Your task to perform on an android device: delete the emails in spam in the gmail app Image 0: 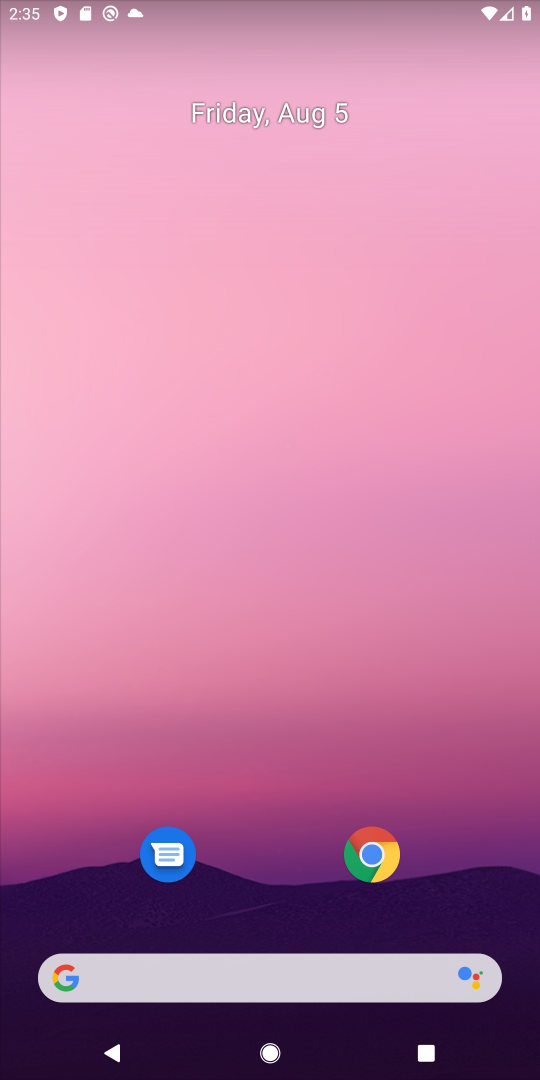
Step 0: drag from (32, 1029) to (508, 273)
Your task to perform on an android device: delete the emails in spam in the gmail app Image 1: 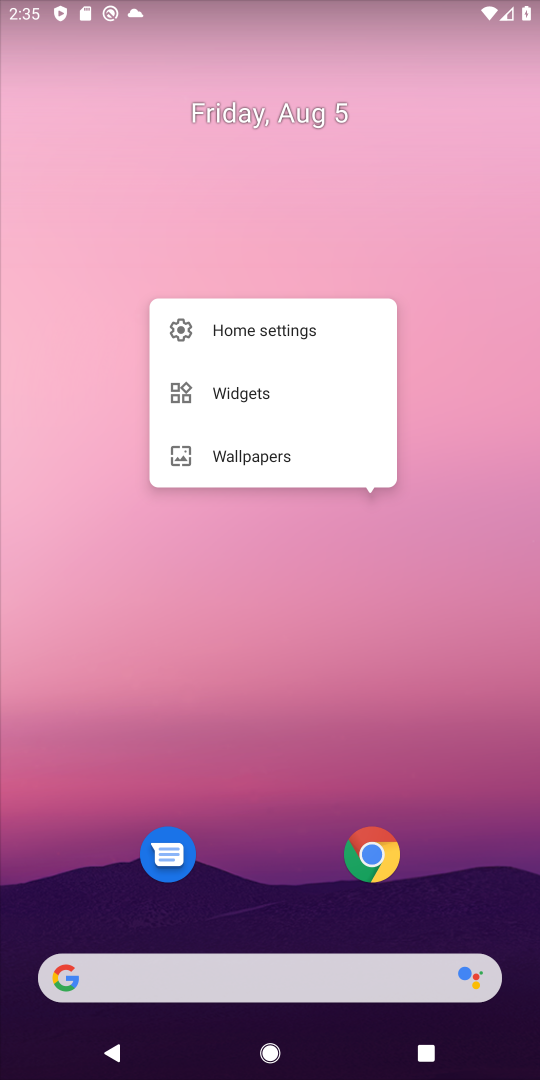
Step 1: click (58, 1045)
Your task to perform on an android device: delete the emails in spam in the gmail app Image 2: 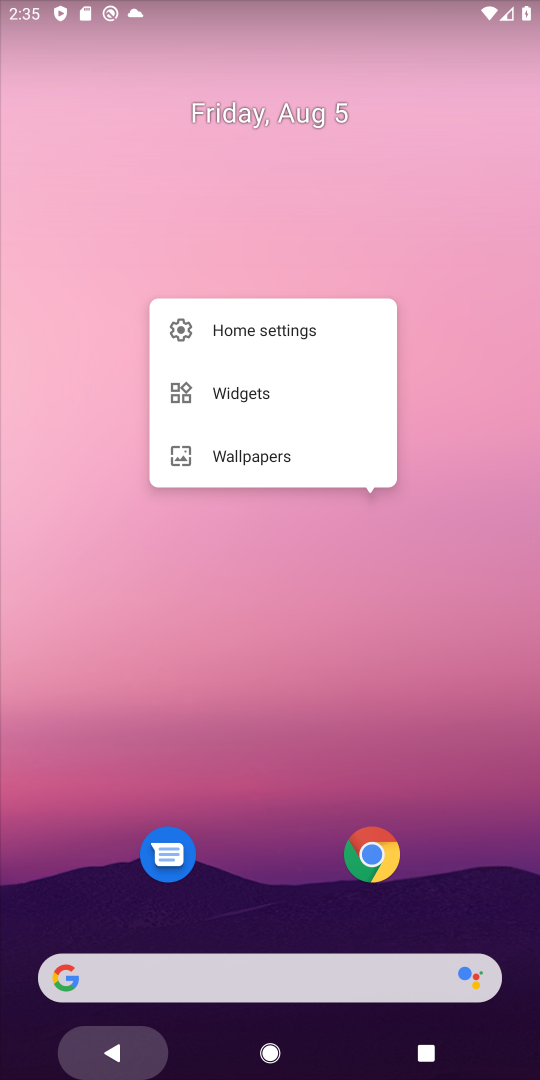
Step 2: drag from (94, 982) to (319, 269)
Your task to perform on an android device: delete the emails in spam in the gmail app Image 3: 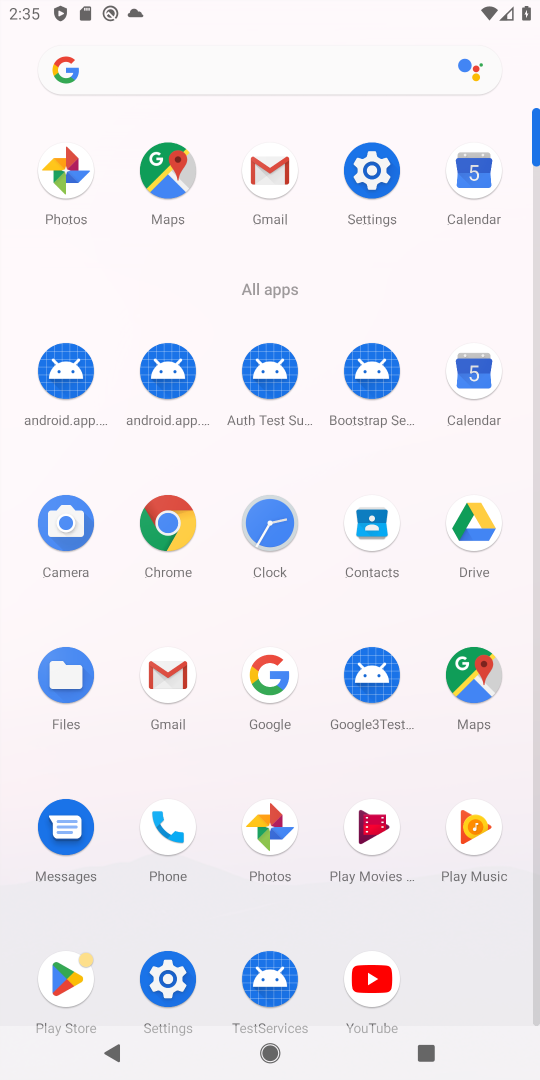
Step 3: click (284, 186)
Your task to perform on an android device: delete the emails in spam in the gmail app Image 4: 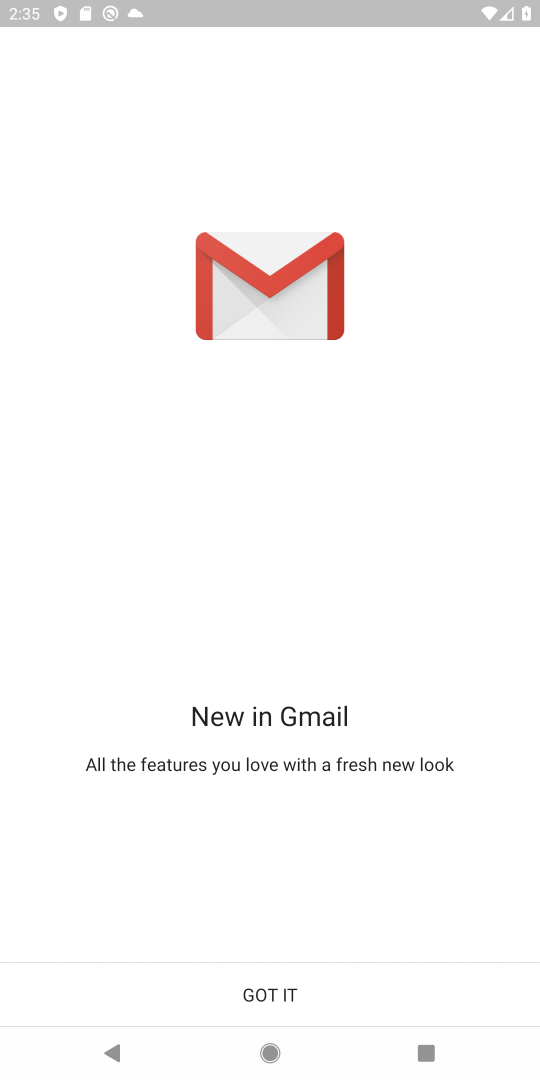
Step 4: click (256, 998)
Your task to perform on an android device: delete the emails in spam in the gmail app Image 5: 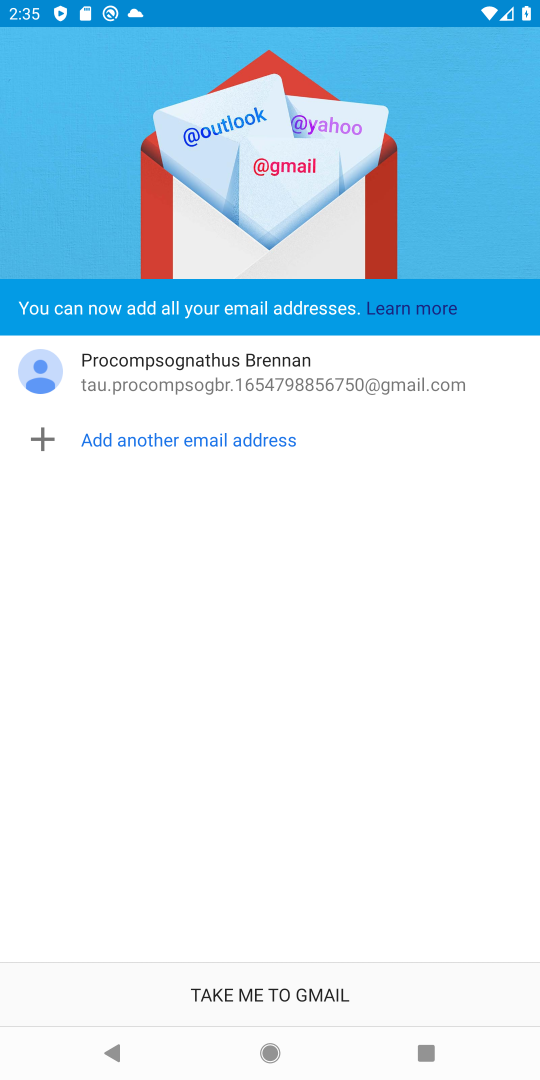
Step 5: click (266, 987)
Your task to perform on an android device: delete the emails in spam in the gmail app Image 6: 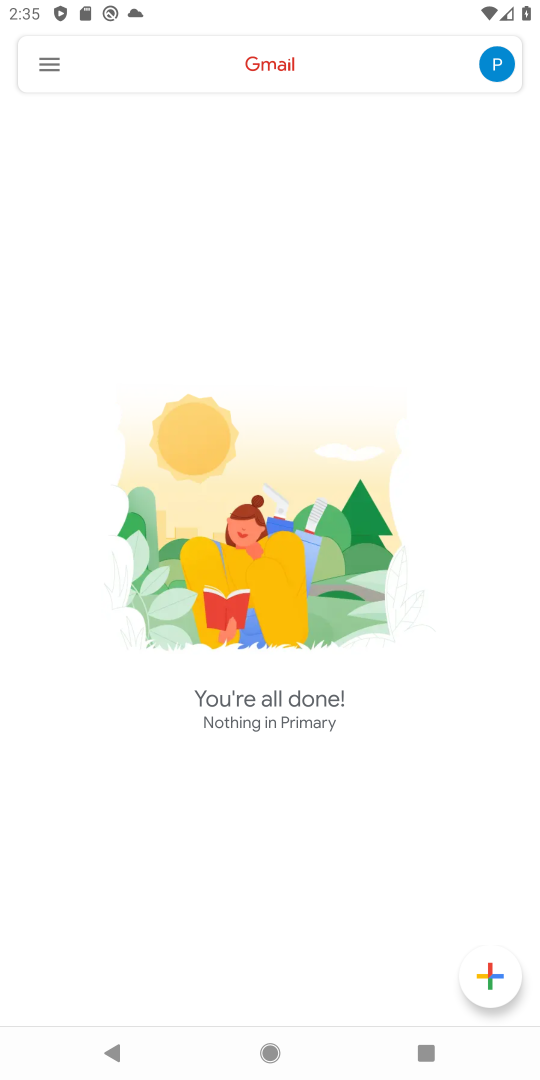
Step 6: click (53, 78)
Your task to perform on an android device: delete the emails in spam in the gmail app Image 7: 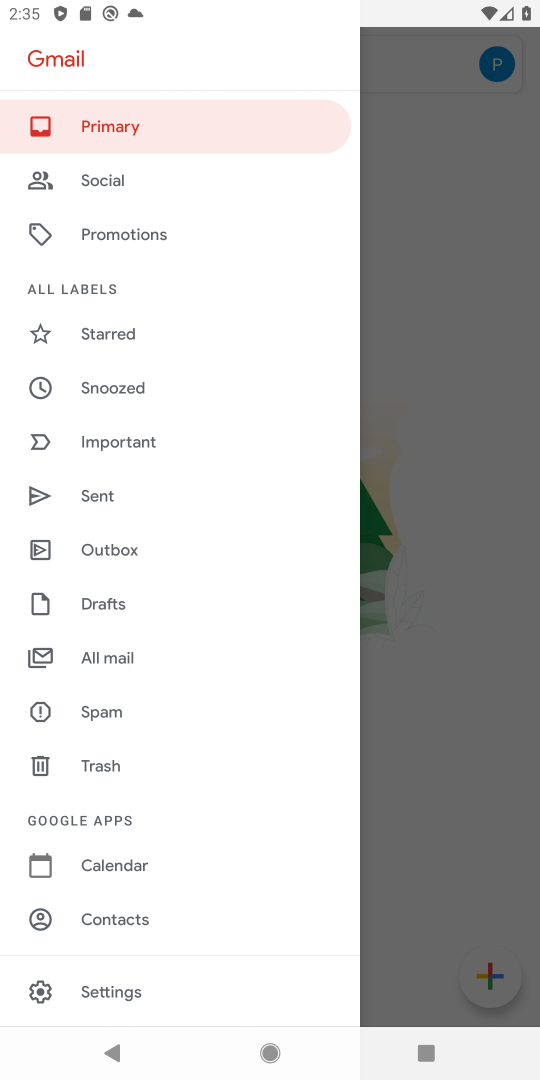
Step 7: click (125, 716)
Your task to perform on an android device: delete the emails in spam in the gmail app Image 8: 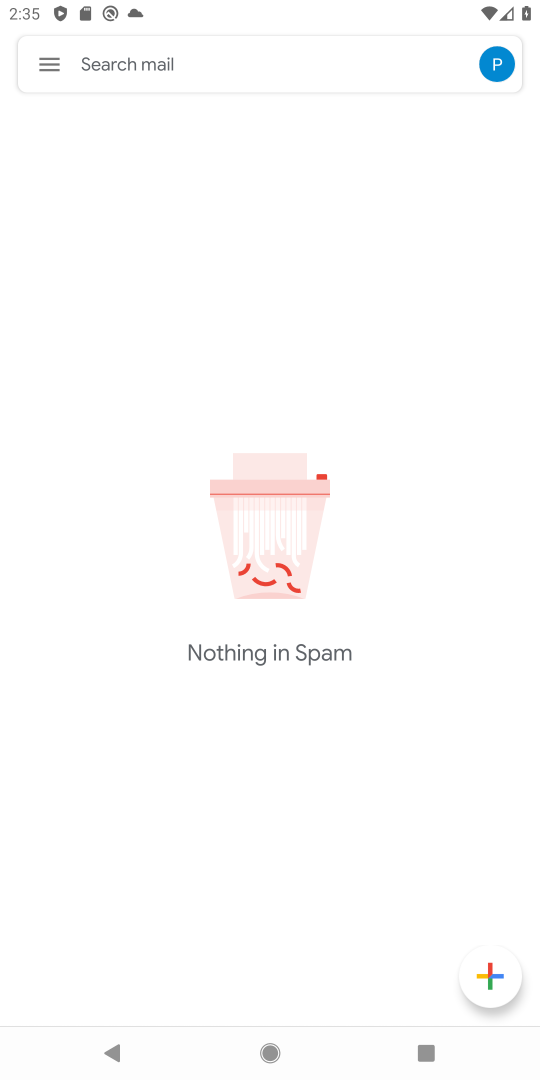
Step 8: task complete